Your task to perform on an android device: open wifi settings Image 0: 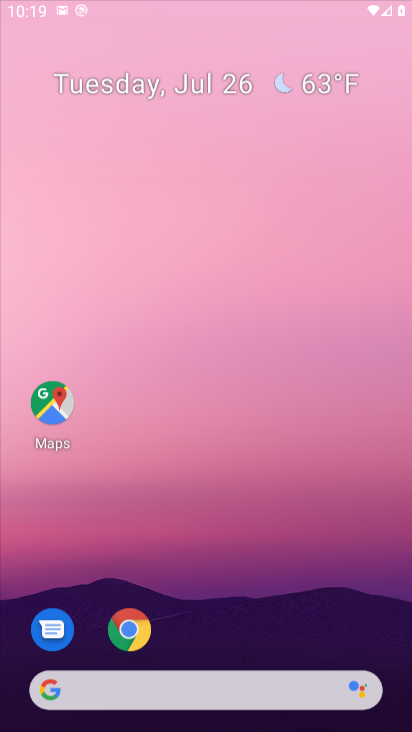
Step 0: press home button
Your task to perform on an android device: open wifi settings Image 1: 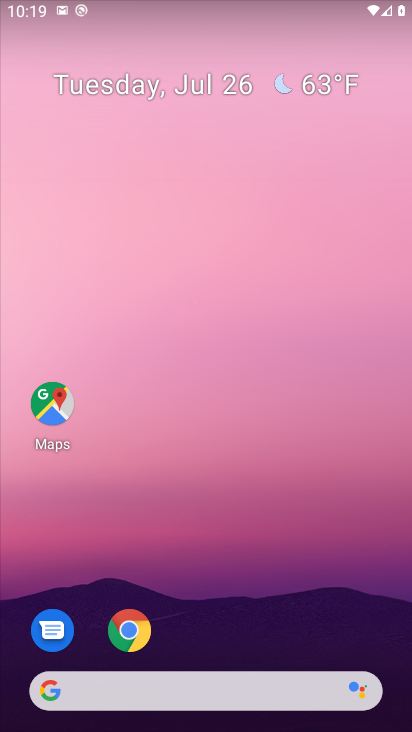
Step 1: drag from (234, 645) to (275, 112)
Your task to perform on an android device: open wifi settings Image 2: 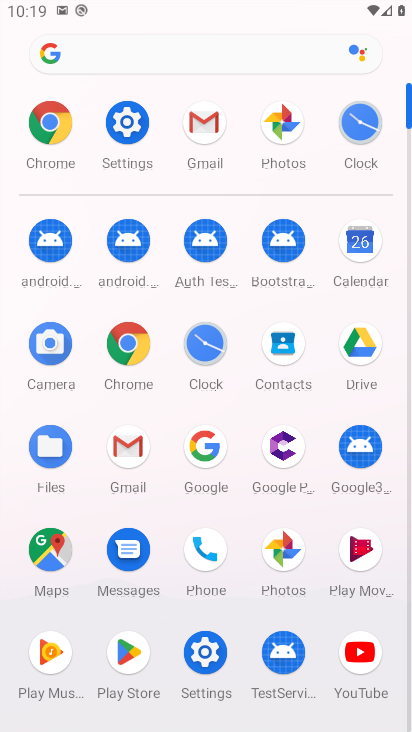
Step 2: click (206, 646)
Your task to perform on an android device: open wifi settings Image 3: 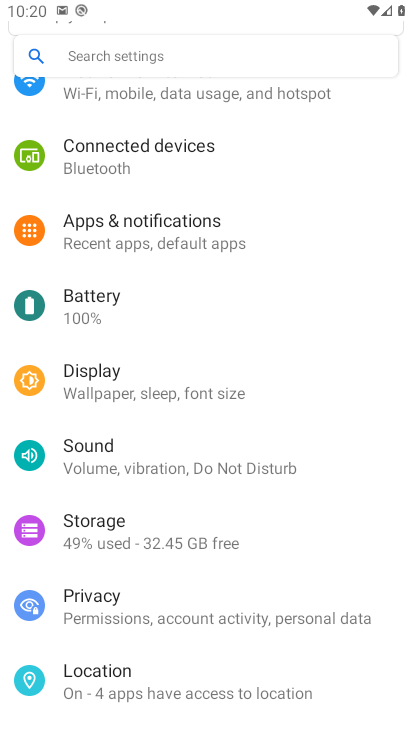
Step 3: click (99, 91)
Your task to perform on an android device: open wifi settings Image 4: 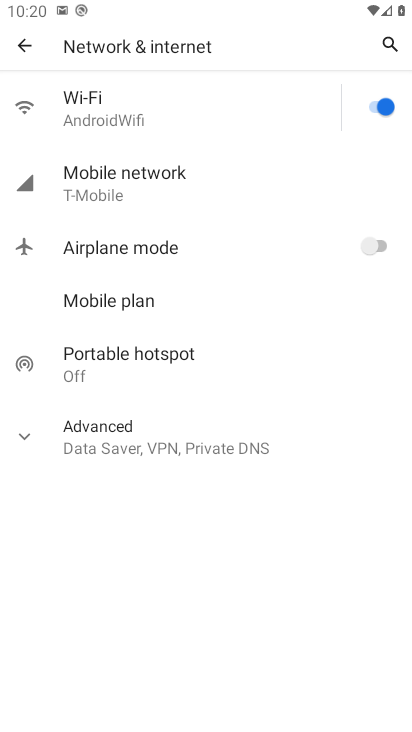
Step 4: click (133, 103)
Your task to perform on an android device: open wifi settings Image 5: 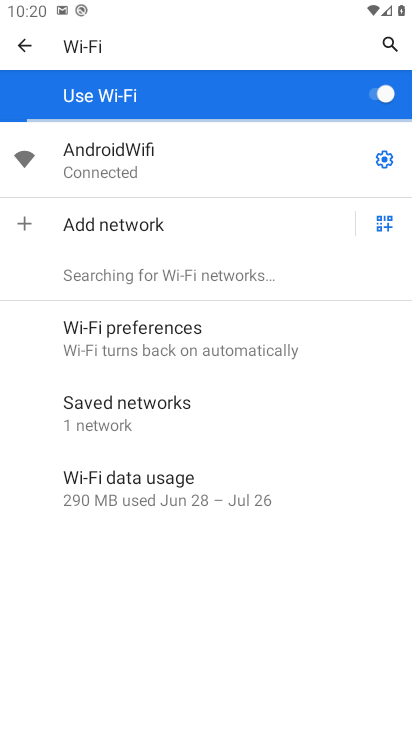
Step 5: task complete